Your task to perform on an android device: Open Chrome and go to settings Image 0: 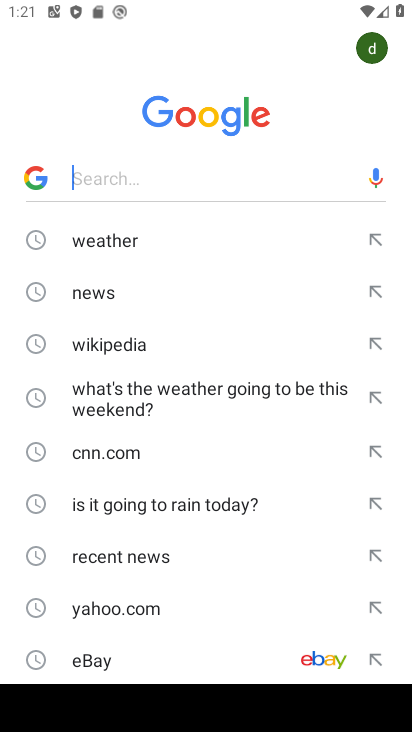
Step 0: task complete